Your task to perform on an android device: Open Google Chrome and open the bookmarks view Image 0: 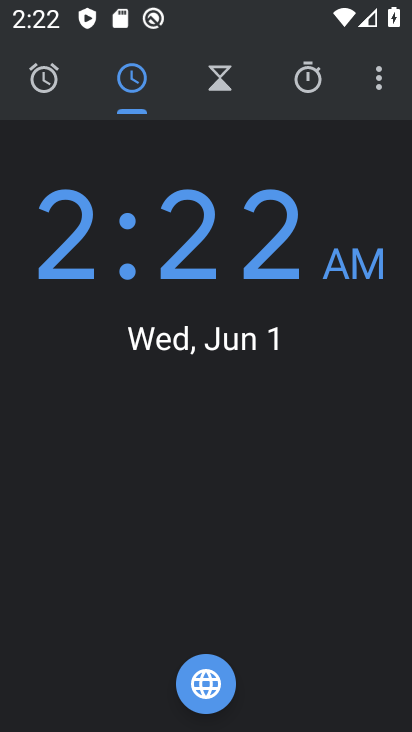
Step 0: press home button
Your task to perform on an android device: Open Google Chrome and open the bookmarks view Image 1: 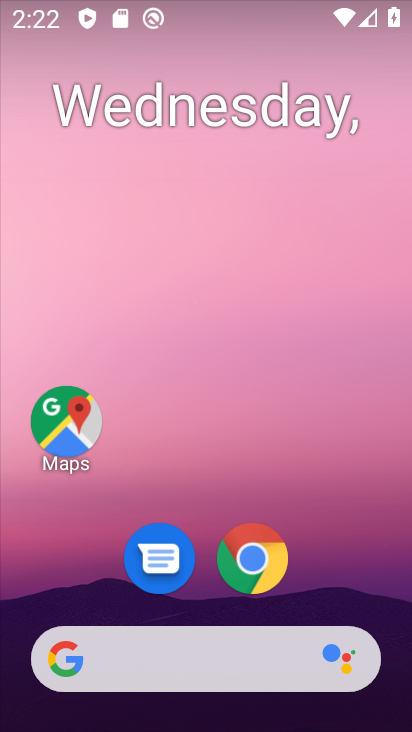
Step 1: drag from (331, 531) to (339, 125)
Your task to perform on an android device: Open Google Chrome and open the bookmarks view Image 2: 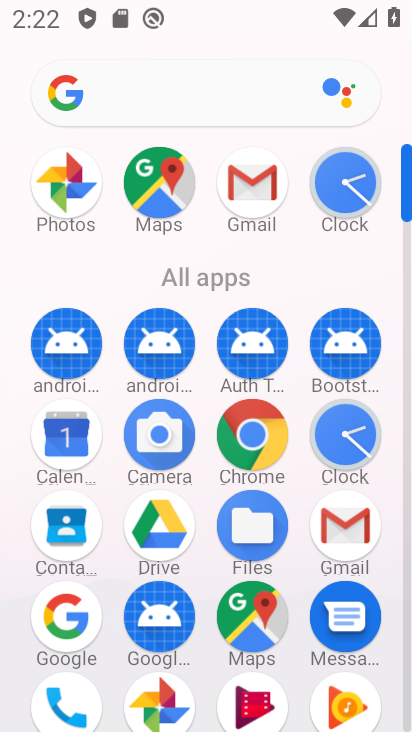
Step 2: click (248, 442)
Your task to perform on an android device: Open Google Chrome and open the bookmarks view Image 3: 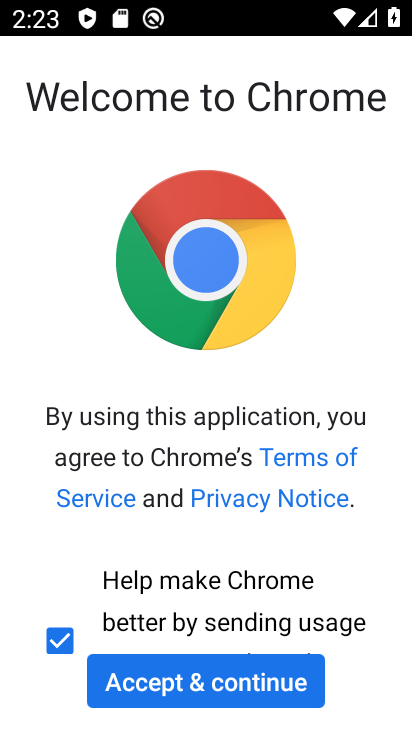
Step 3: click (257, 658)
Your task to perform on an android device: Open Google Chrome and open the bookmarks view Image 4: 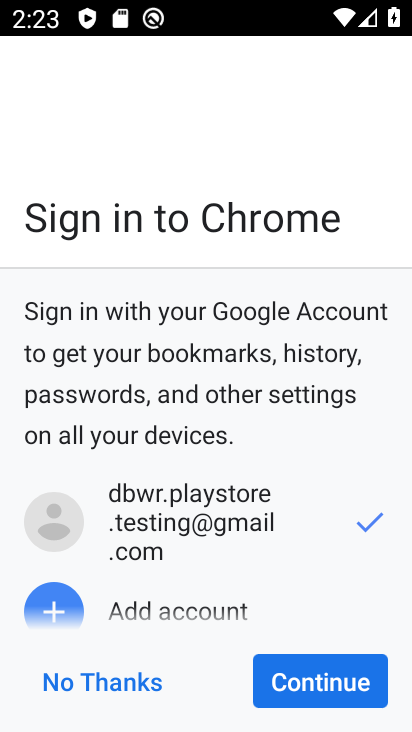
Step 4: click (257, 686)
Your task to perform on an android device: Open Google Chrome and open the bookmarks view Image 5: 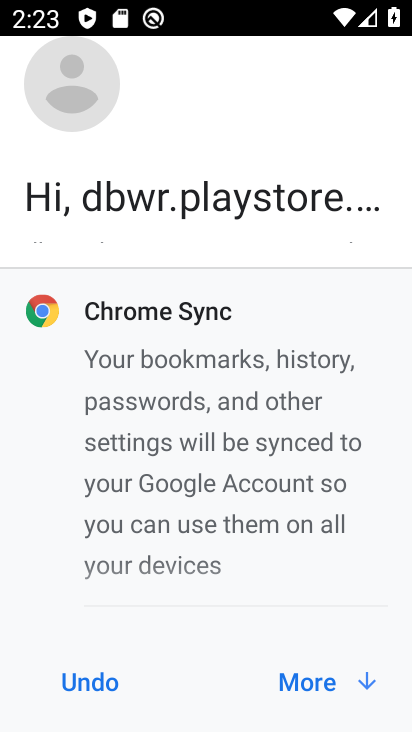
Step 5: click (286, 684)
Your task to perform on an android device: Open Google Chrome and open the bookmarks view Image 6: 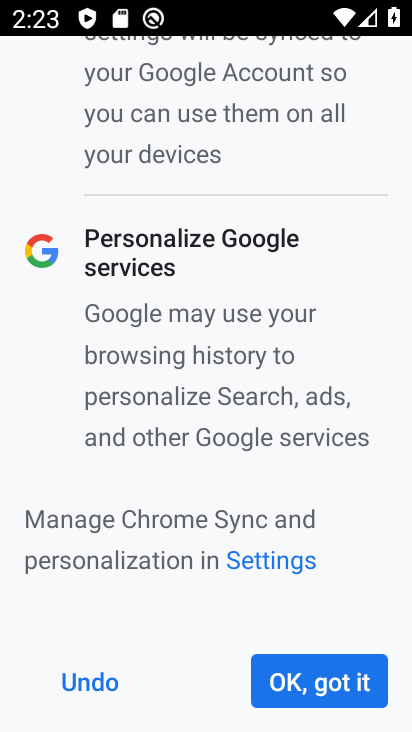
Step 6: click (288, 684)
Your task to perform on an android device: Open Google Chrome and open the bookmarks view Image 7: 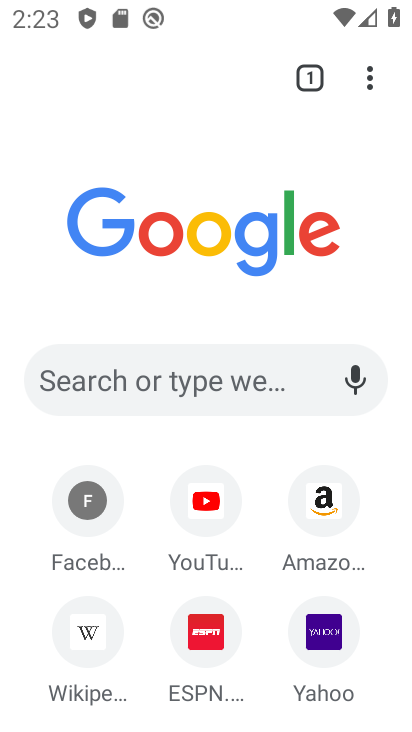
Step 7: task complete